Your task to perform on an android device: turn on javascript in the chrome app Image 0: 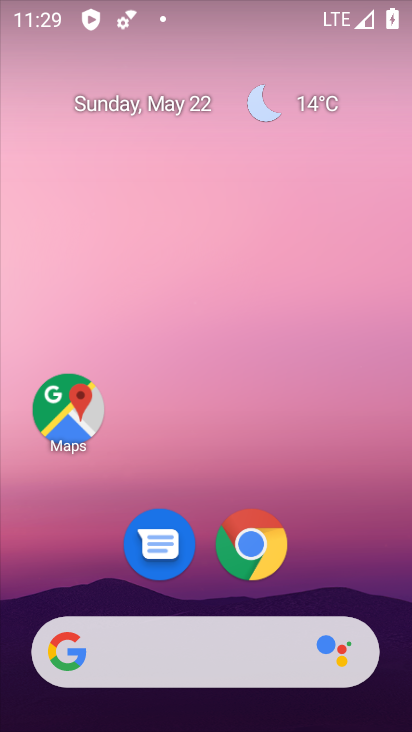
Step 0: drag from (311, 579) to (253, 180)
Your task to perform on an android device: turn on javascript in the chrome app Image 1: 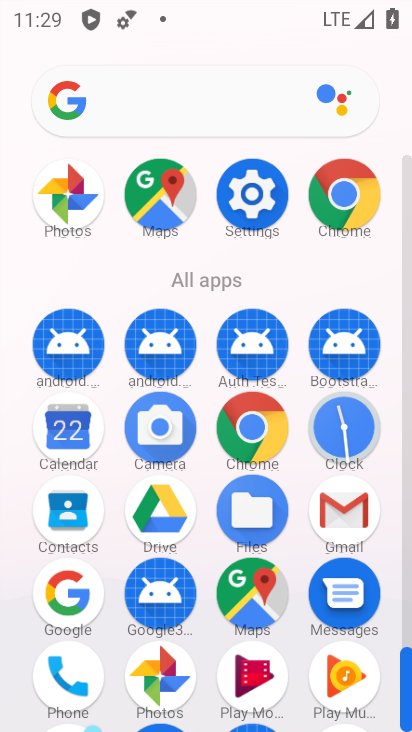
Step 1: click (352, 212)
Your task to perform on an android device: turn on javascript in the chrome app Image 2: 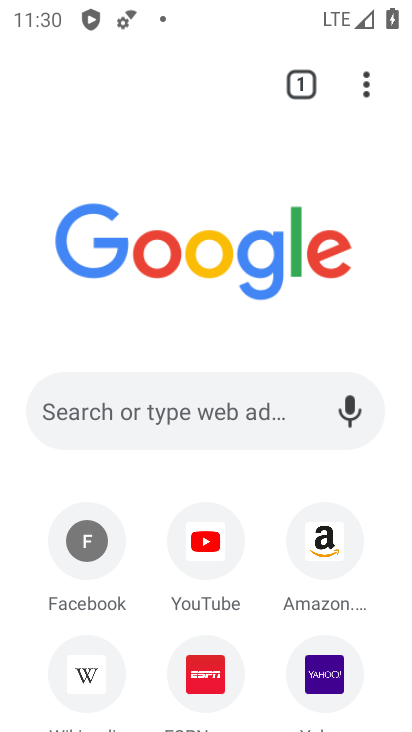
Step 2: click (370, 92)
Your task to perform on an android device: turn on javascript in the chrome app Image 3: 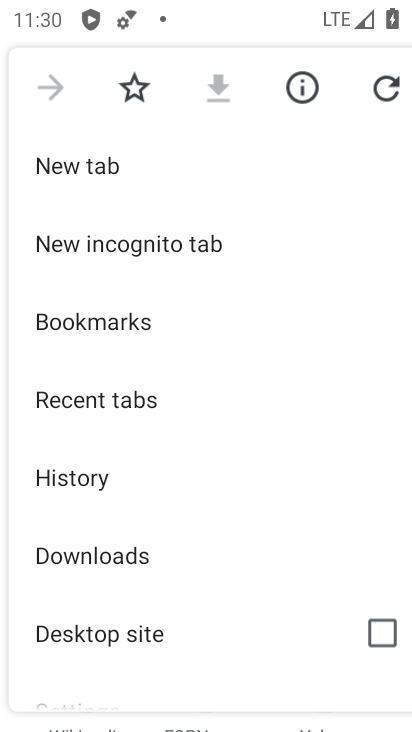
Step 3: drag from (227, 628) to (202, 273)
Your task to perform on an android device: turn on javascript in the chrome app Image 4: 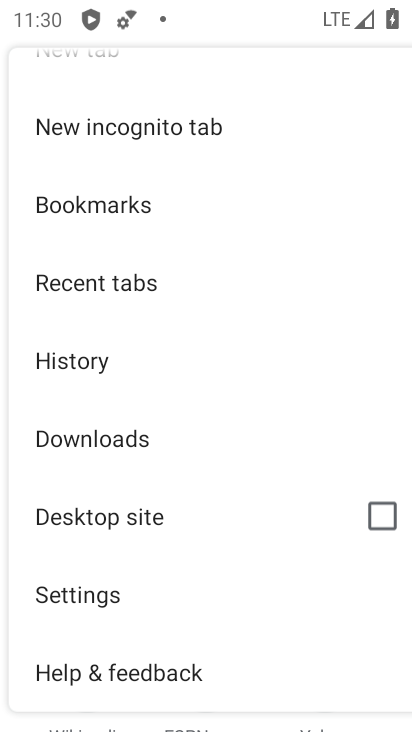
Step 4: click (97, 603)
Your task to perform on an android device: turn on javascript in the chrome app Image 5: 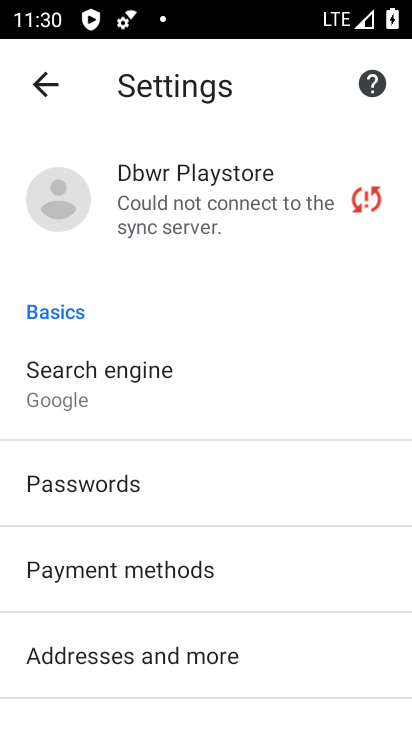
Step 5: drag from (136, 623) to (124, 393)
Your task to perform on an android device: turn on javascript in the chrome app Image 6: 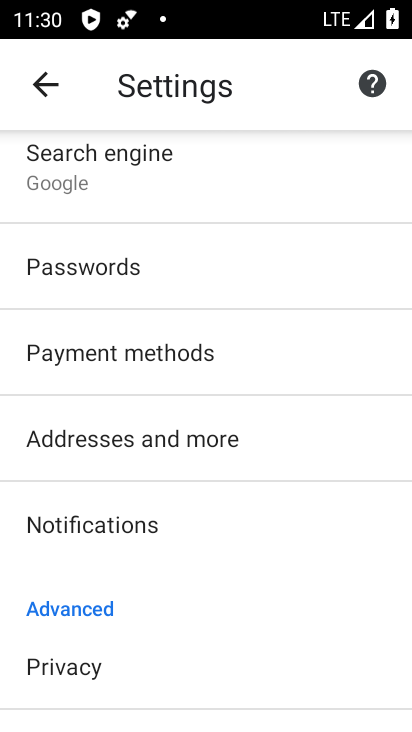
Step 6: drag from (148, 686) to (175, 420)
Your task to perform on an android device: turn on javascript in the chrome app Image 7: 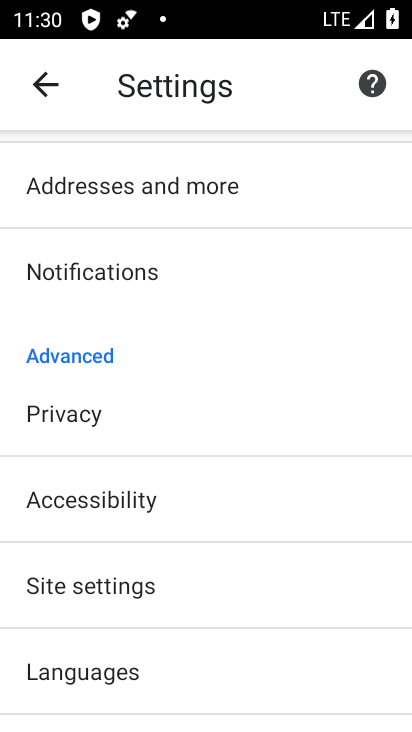
Step 7: click (105, 594)
Your task to perform on an android device: turn on javascript in the chrome app Image 8: 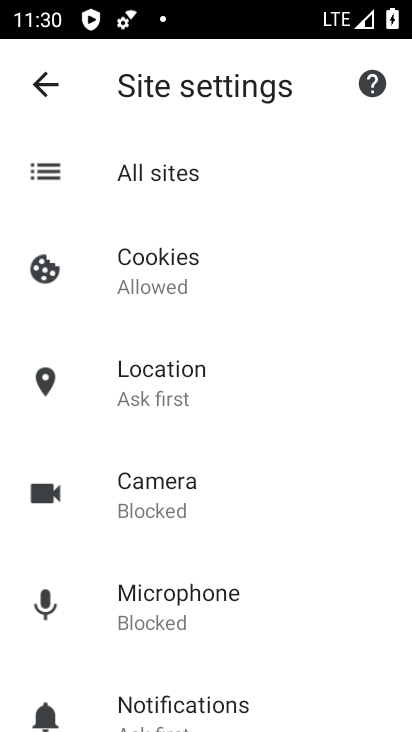
Step 8: drag from (196, 678) to (199, 426)
Your task to perform on an android device: turn on javascript in the chrome app Image 9: 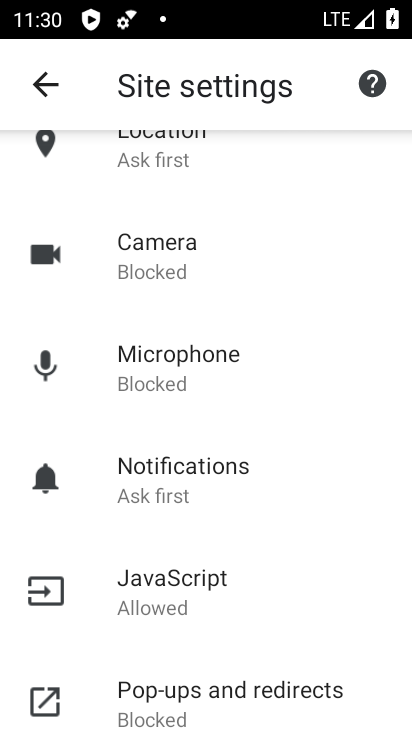
Step 9: click (175, 616)
Your task to perform on an android device: turn on javascript in the chrome app Image 10: 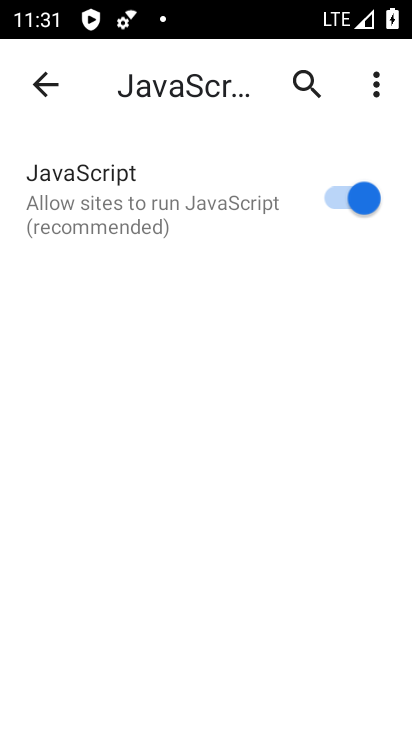
Step 10: task complete